Your task to perform on an android device: Check the news Image 0: 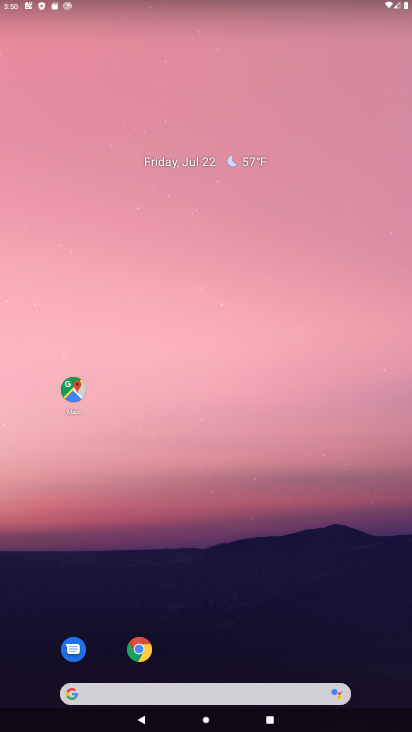
Step 0: drag from (170, 278) to (209, 50)
Your task to perform on an android device: Check the news Image 1: 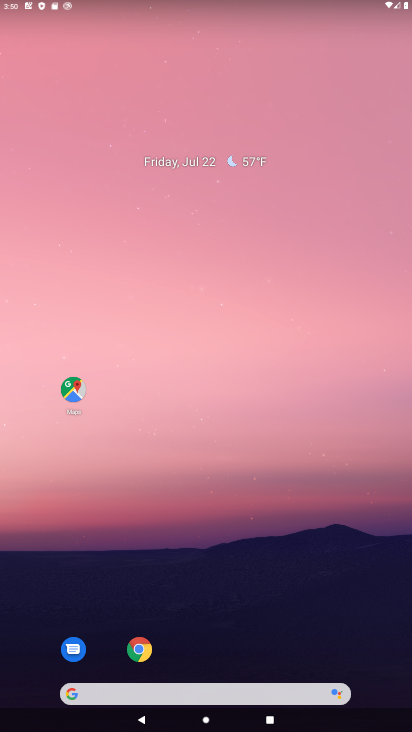
Step 1: click (110, 700)
Your task to perform on an android device: Check the news Image 2: 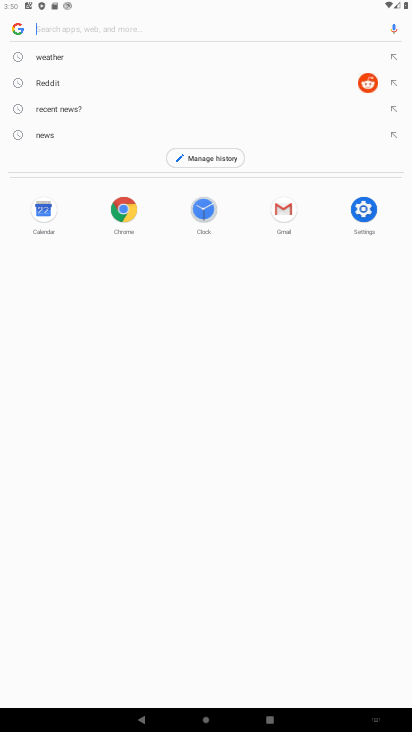
Step 2: type "Check the news"
Your task to perform on an android device: Check the news Image 3: 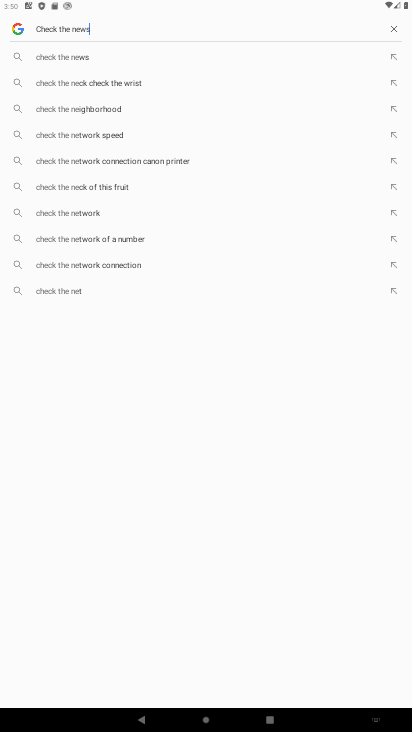
Step 3: type ""
Your task to perform on an android device: Check the news Image 4: 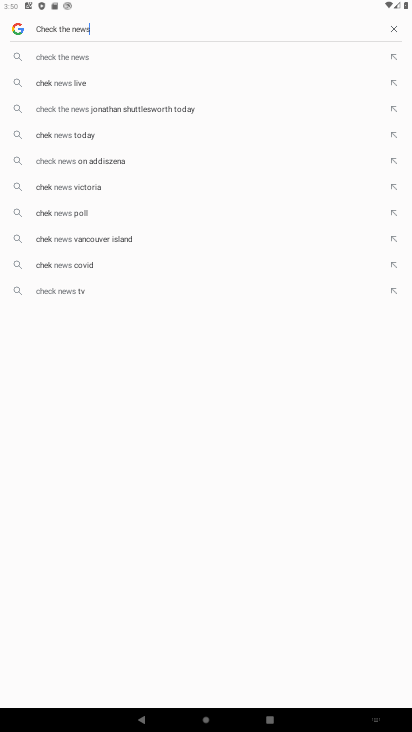
Step 4: click (71, 59)
Your task to perform on an android device: Check the news Image 5: 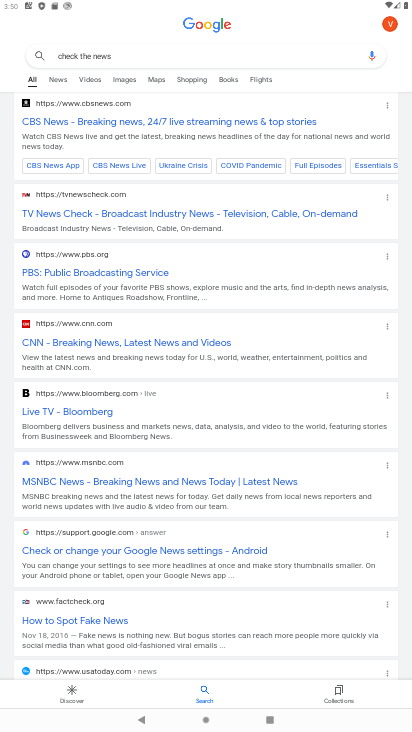
Step 5: task complete